Your task to perform on an android device: manage bookmarks in the chrome app Image 0: 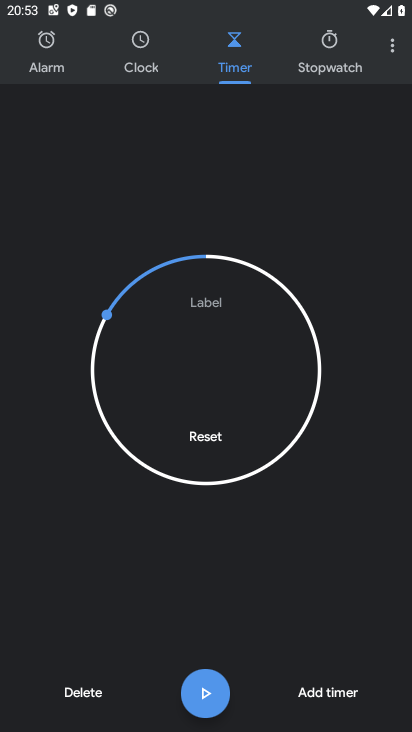
Step 0: press home button
Your task to perform on an android device: manage bookmarks in the chrome app Image 1: 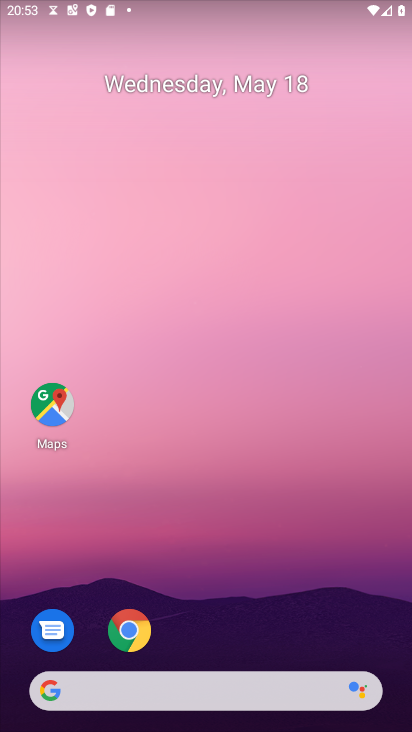
Step 1: click (135, 633)
Your task to perform on an android device: manage bookmarks in the chrome app Image 2: 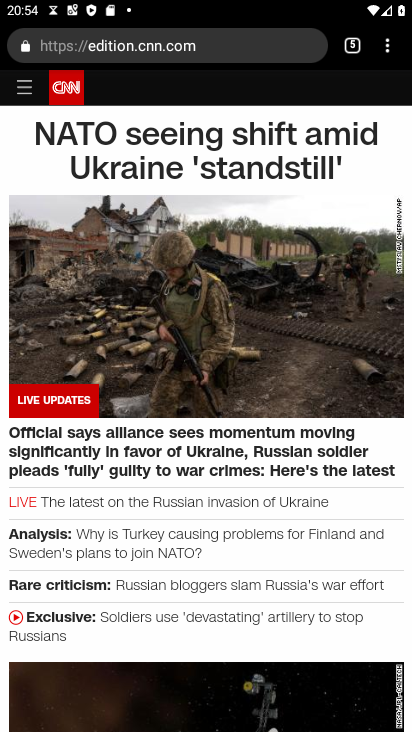
Step 2: task complete